Your task to perform on an android device: Open internet settings Image 0: 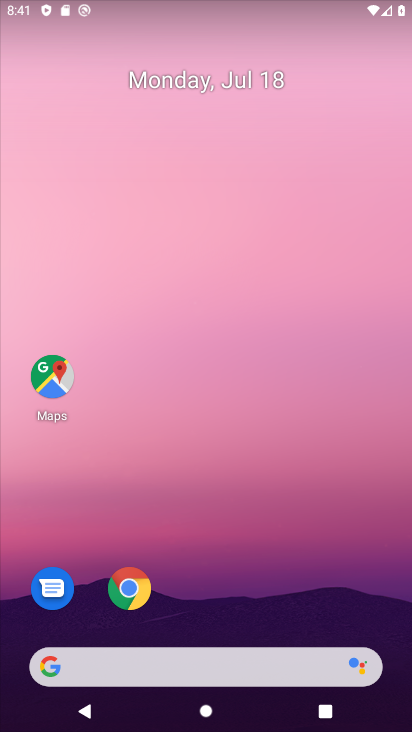
Step 0: press home button
Your task to perform on an android device: Open internet settings Image 1: 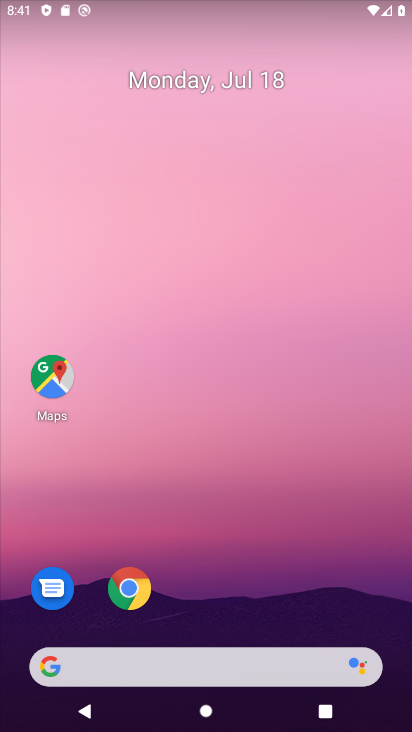
Step 1: drag from (276, 652) to (241, 150)
Your task to perform on an android device: Open internet settings Image 2: 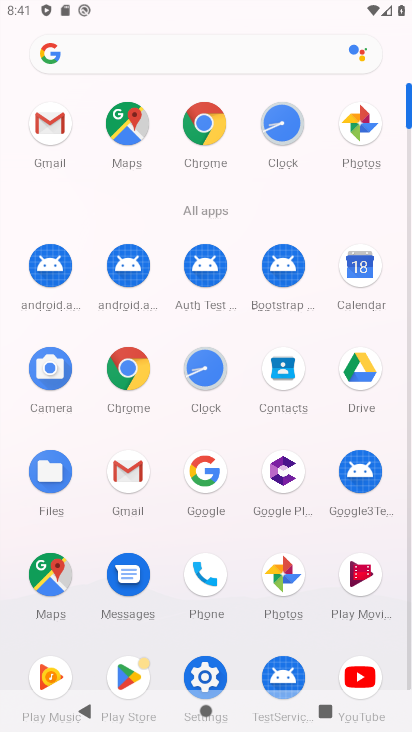
Step 2: click (194, 668)
Your task to perform on an android device: Open internet settings Image 3: 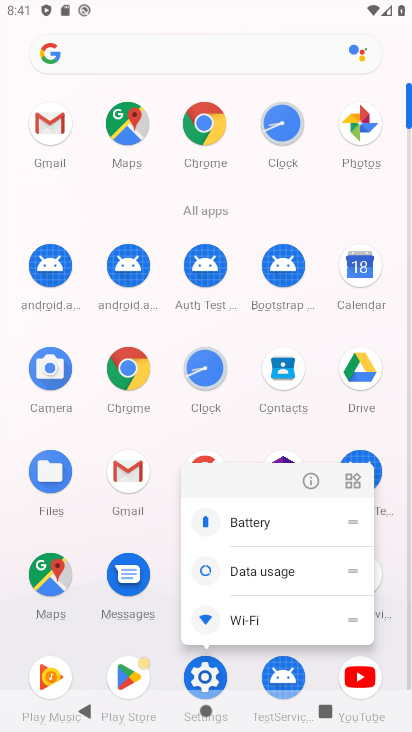
Step 3: click (194, 668)
Your task to perform on an android device: Open internet settings Image 4: 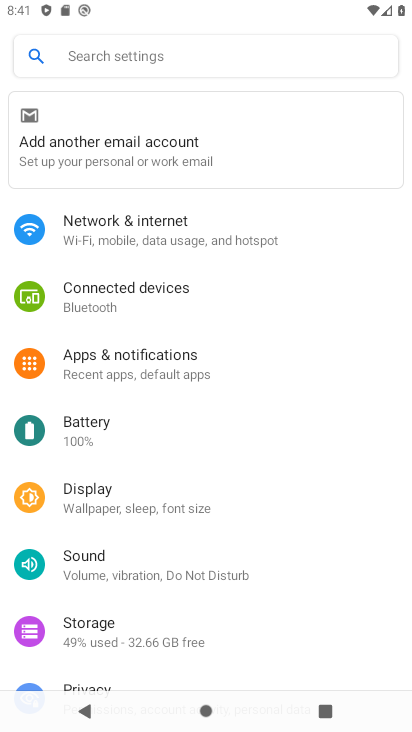
Step 4: click (209, 227)
Your task to perform on an android device: Open internet settings Image 5: 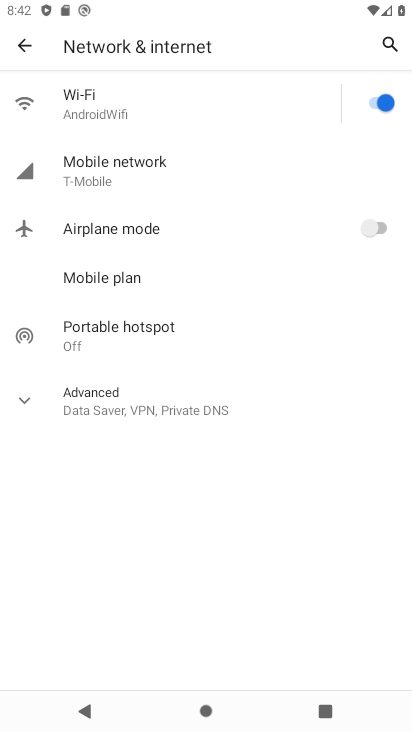
Step 5: task complete